Your task to perform on an android device: turn on notifications settings in the gmail app Image 0: 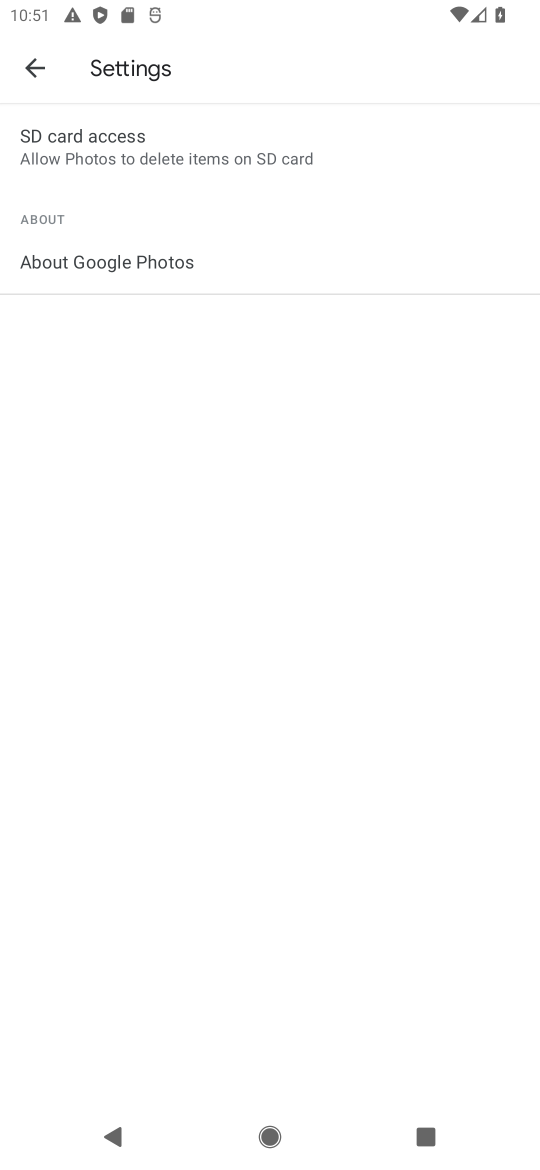
Step 0: press home button
Your task to perform on an android device: turn on notifications settings in the gmail app Image 1: 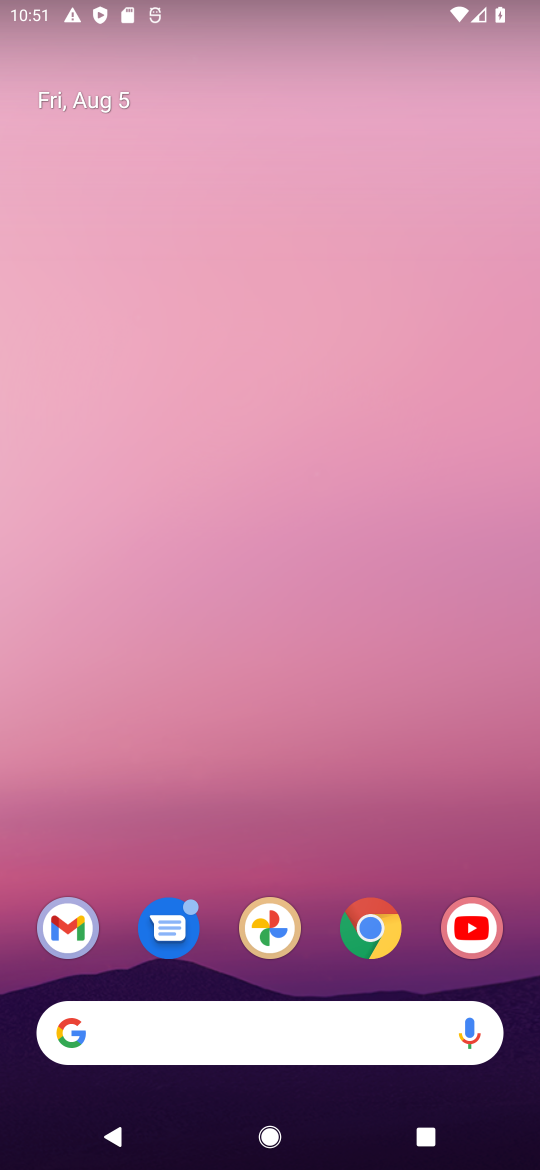
Step 1: drag from (274, 984) to (170, 152)
Your task to perform on an android device: turn on notifications settings in the gmail app Image 2: 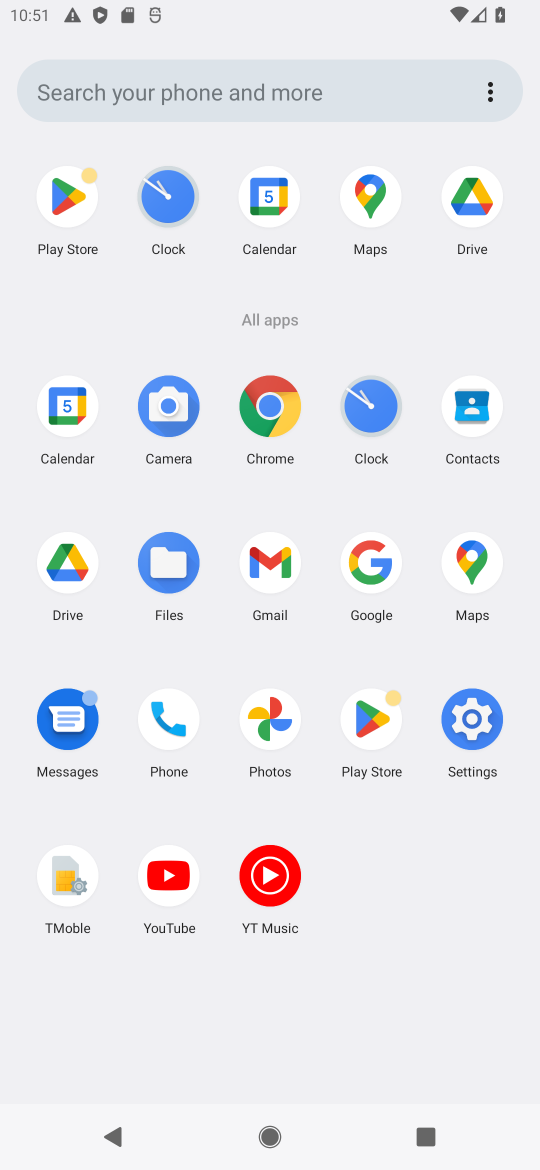
Step 2: click (278, 554)
Your task to perform on an android device: turn on notifications settings in the gmail app Image 3: 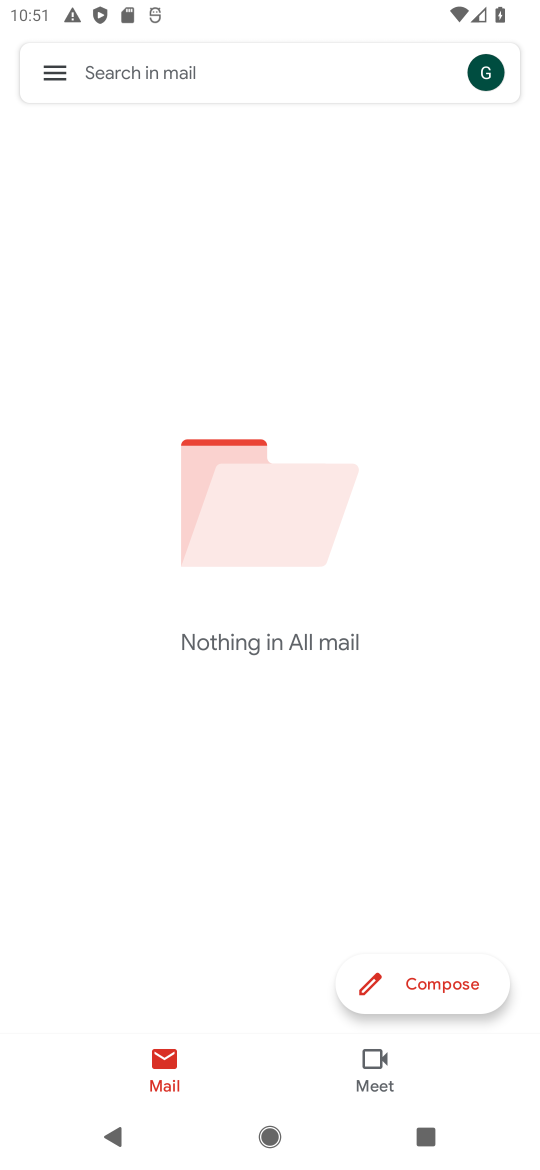
Step 3: click (99, 64)
Your task to perform on an android device: turn on notifications settings in the gmail app Image 4: 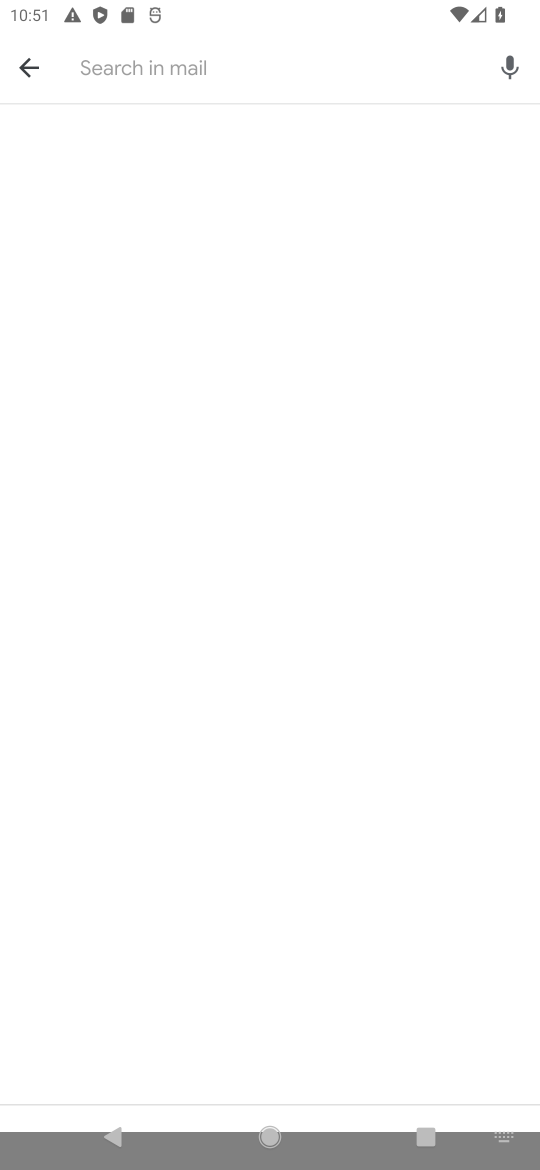
Step 4: click (48, 68)
Your task to perform on an android device: turn on notifications settings in the gmail app Image 5: 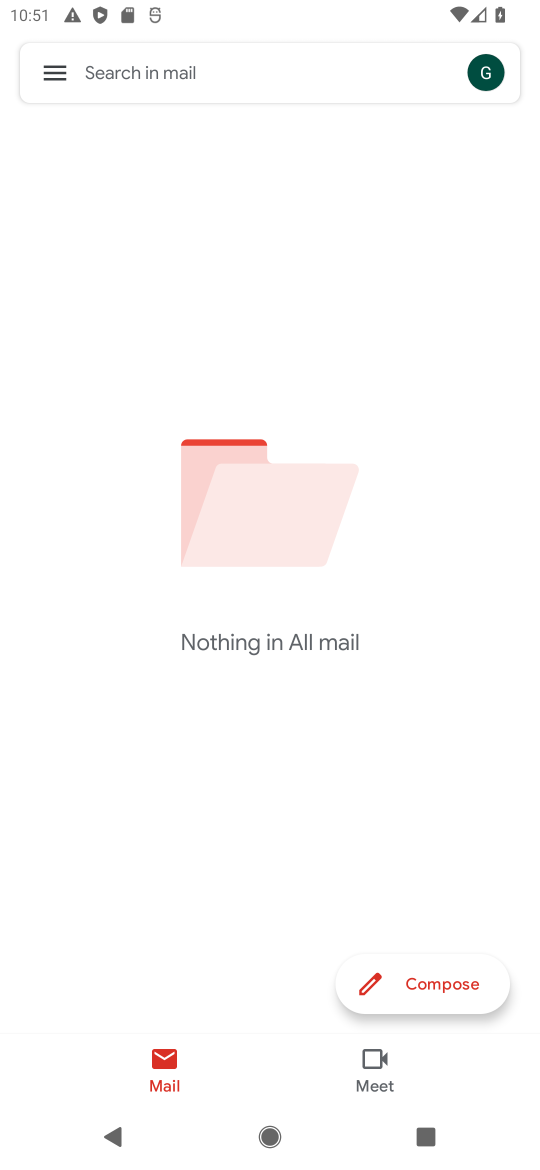
Step 5: click (48, 68)
Your task to perform on an android device: turn on notifications settings in the gmail app Image 6: 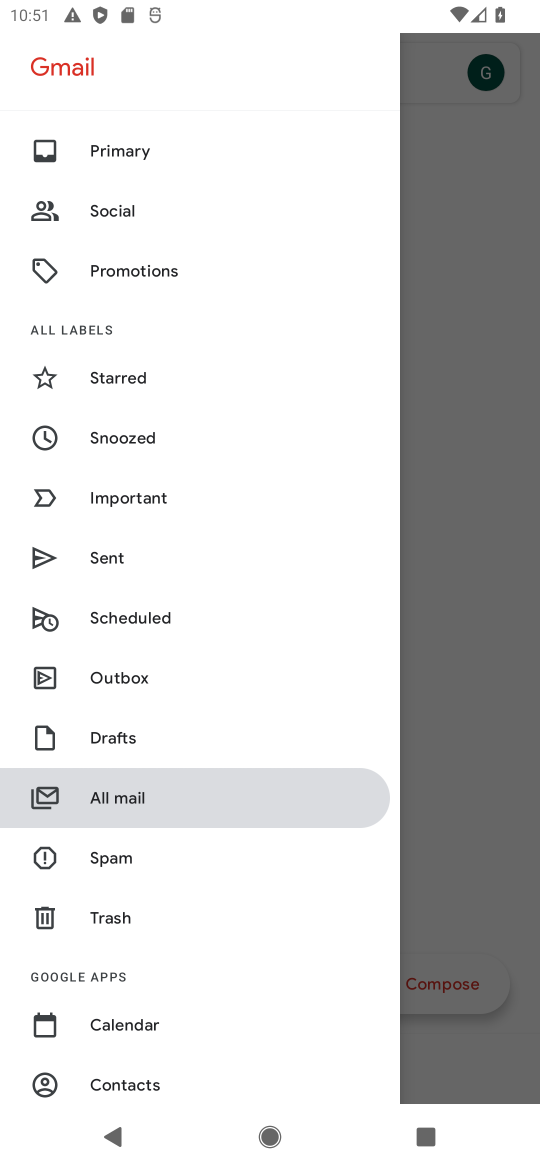
Step 6: drag from (119, 926) to (83, 145)
Your task to perform on an android device: turn on notifications settings in the gmail app Image 7: 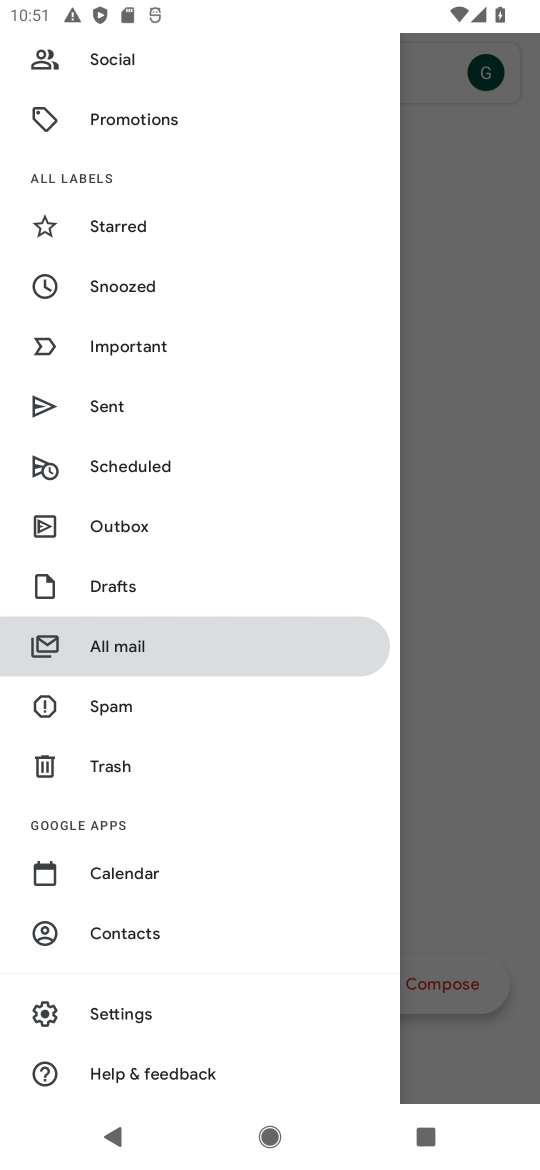
Step 7: click (113, 999)
Your task to perform on an android device: turn on notifications settings in the gmail app Image 8: 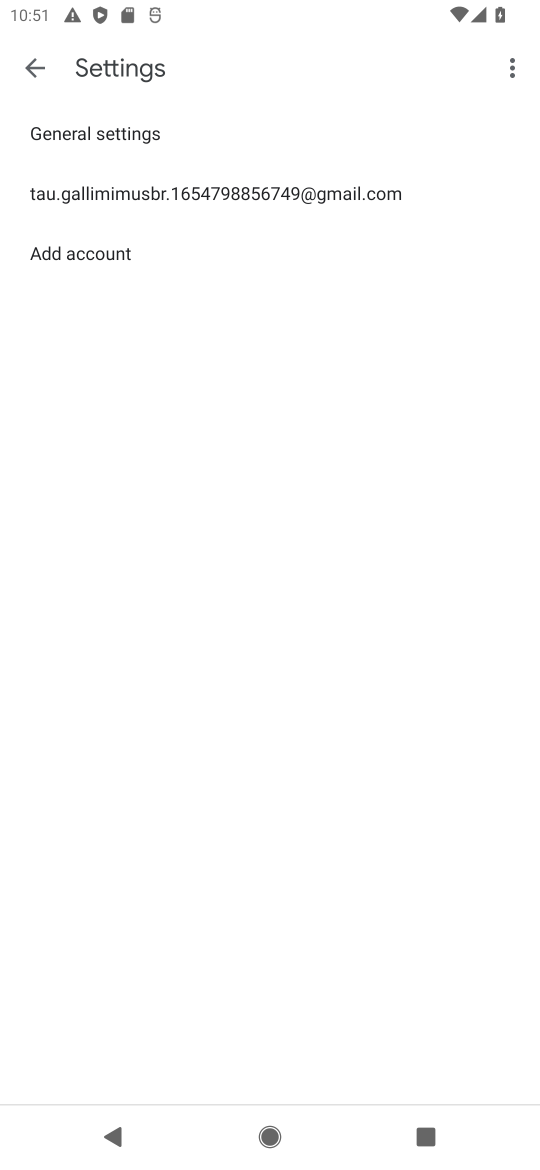
Step 8: click (164, 191)
Your task to perform on an android device: turn on notifications settings in the gmail app Image 9: 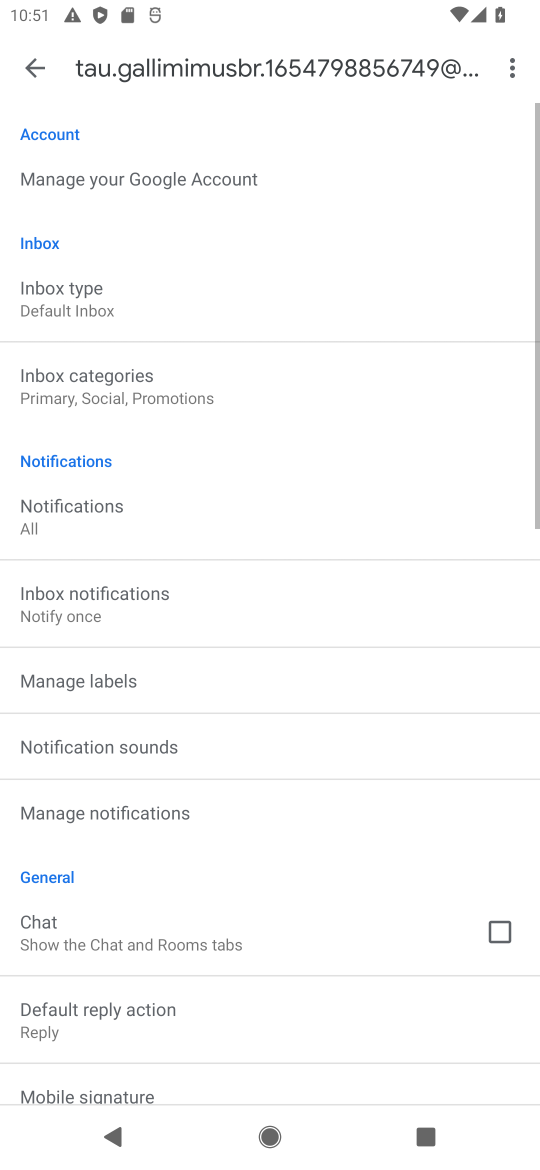
Step 9: click (27, 63)
Your task to perform on an android device: turn on notifications settings in the gmail app Image 10: 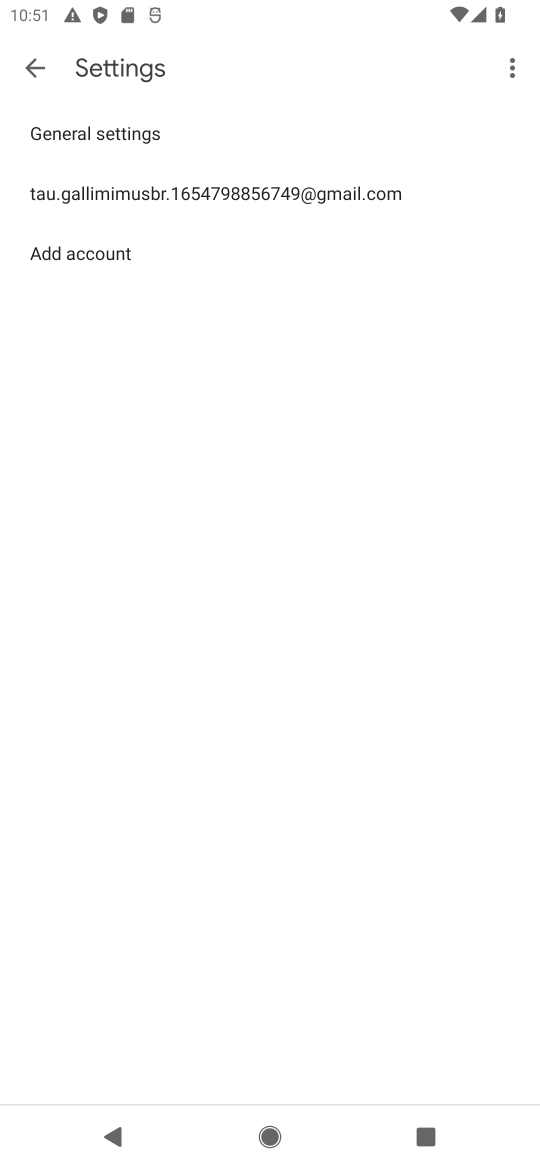
Step 10: click (120, 120)
Your task to perform on an android device: turn on notifications settings in the gmail app Image 11: 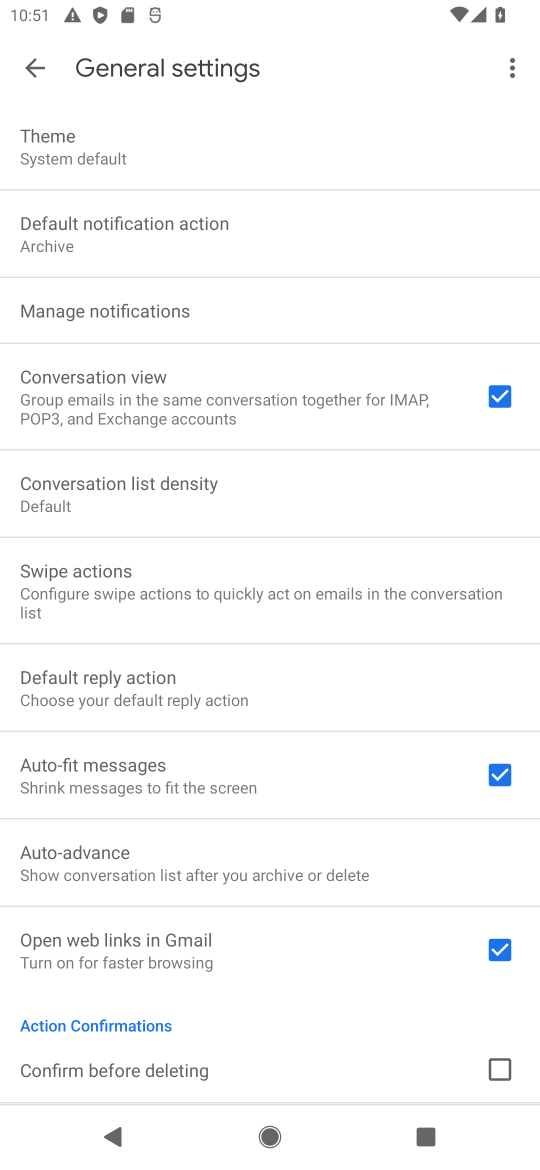
Step 11: click (103, 294)
Your task to perform on an android device: turn on notifications settings in the gmail app Image 12: 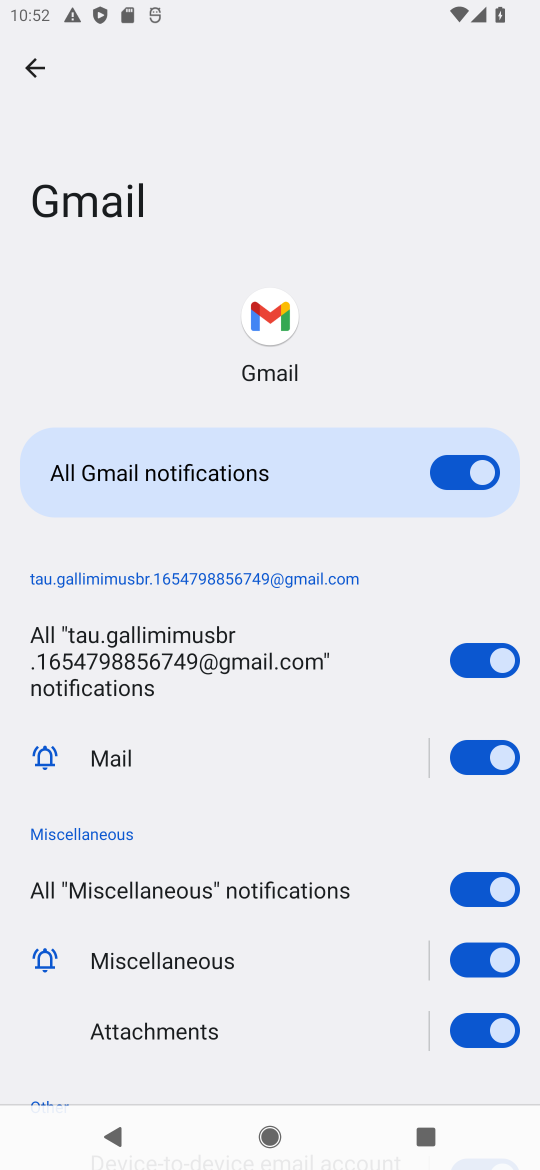
Step 12: task complete